Your task to perform on an android device: open app "Google Find My Device" (install if not already installed) Image 0: 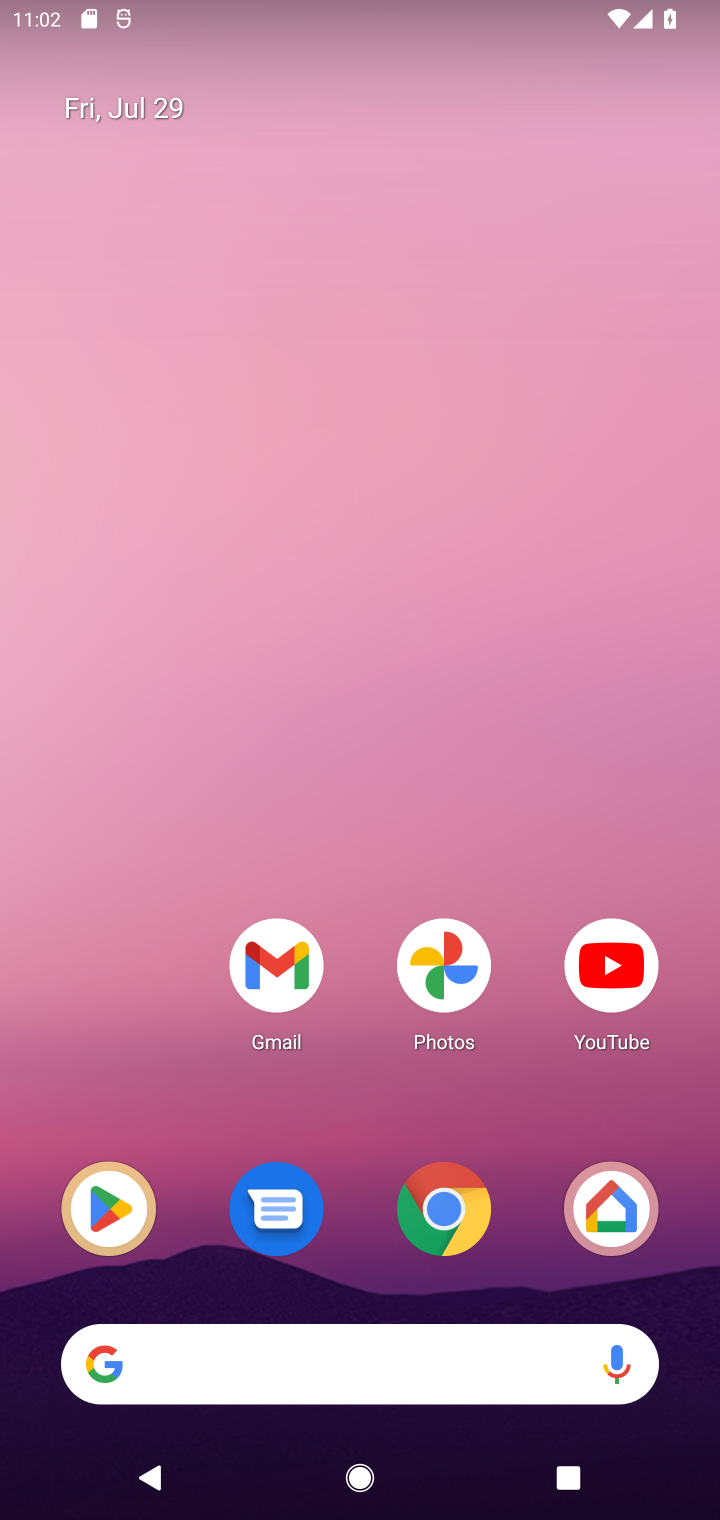
Step 0: drag from (526, 1070) to (502, 145)
Your task to perform on an android device: open app "Google Find My Device" (install if not already installed) Image 1: 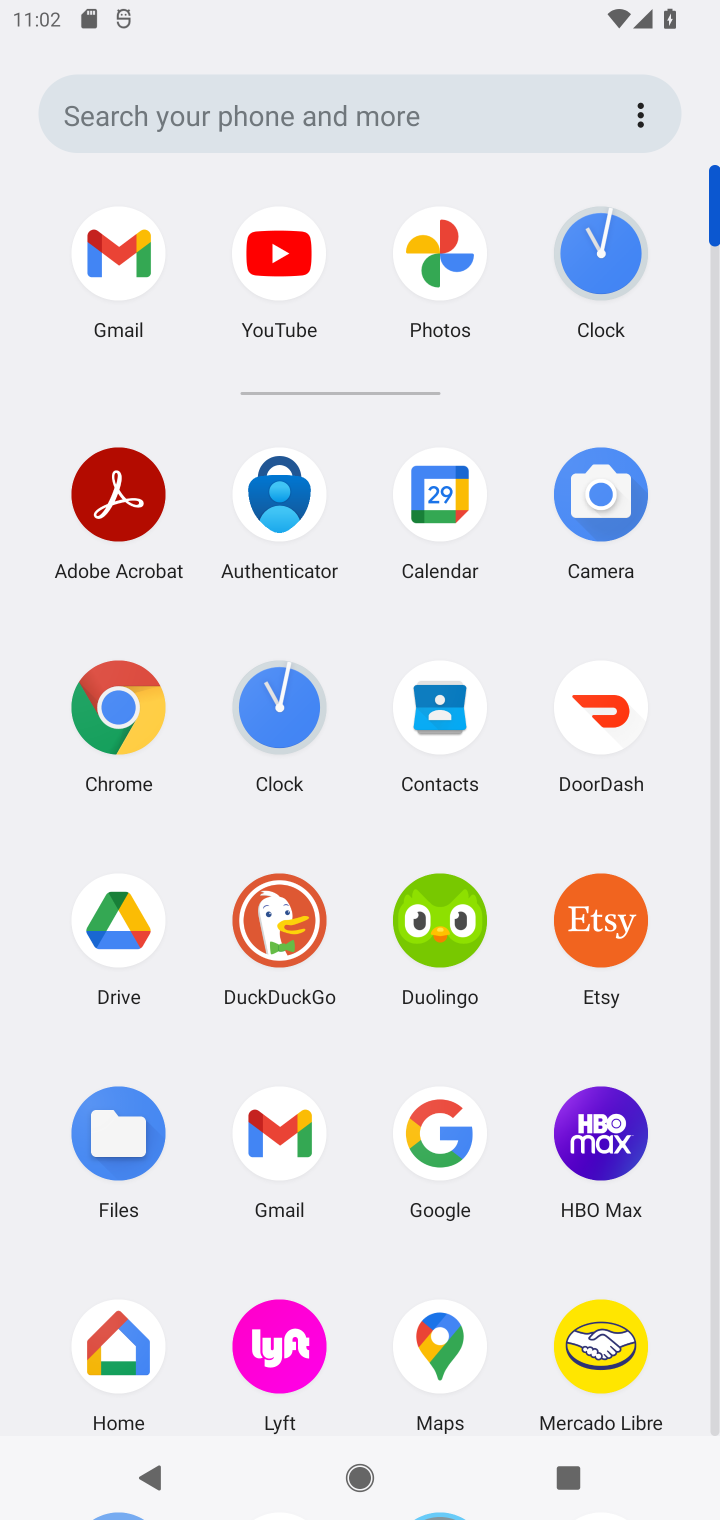
Step 1: drag from (526, 1101) to (537, 435)
Your task to perform on an android device: open app "Google Find My Device" (install if not already installed) Image 2: 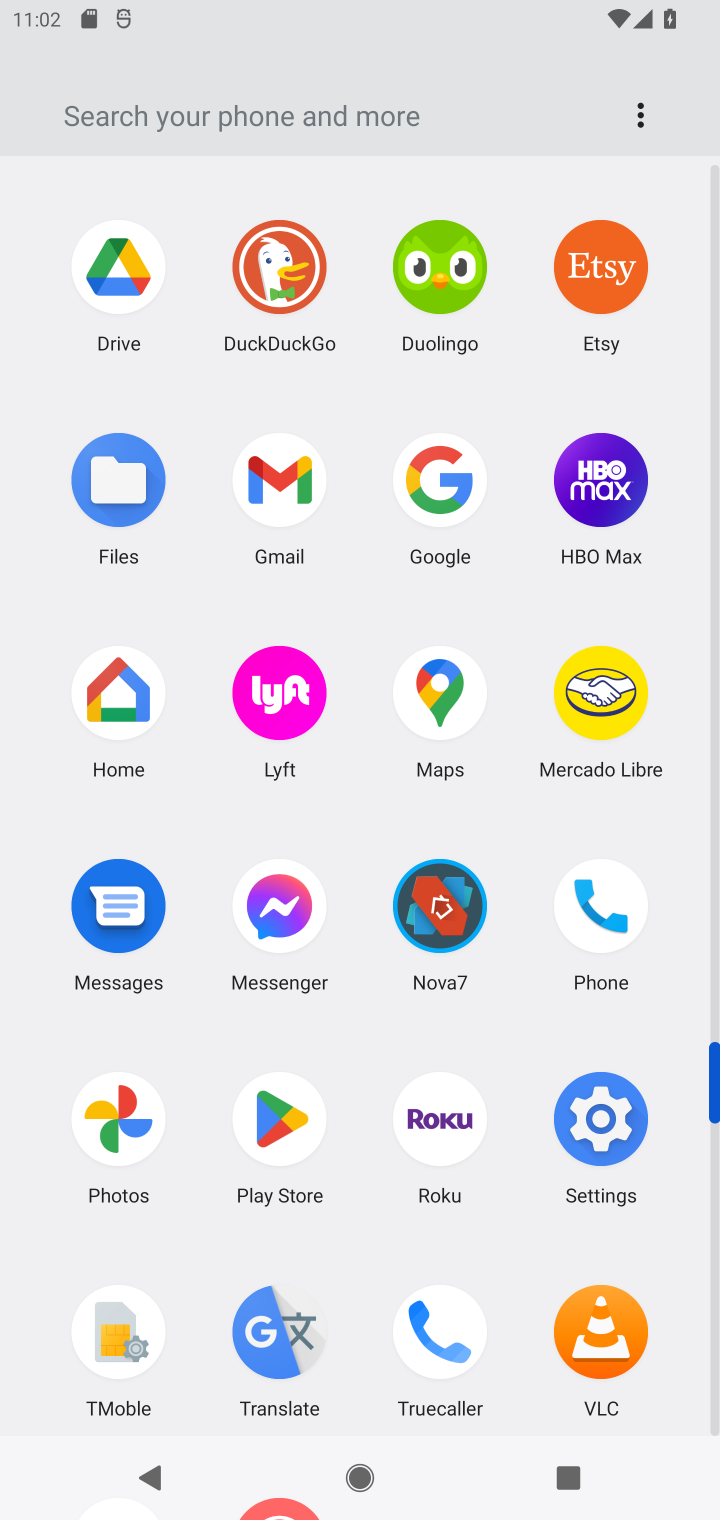
Step 2: click (270, 1130)
Your task to perform on an android device: open app "Google Find My Device" (install if not already installed) Image 3: 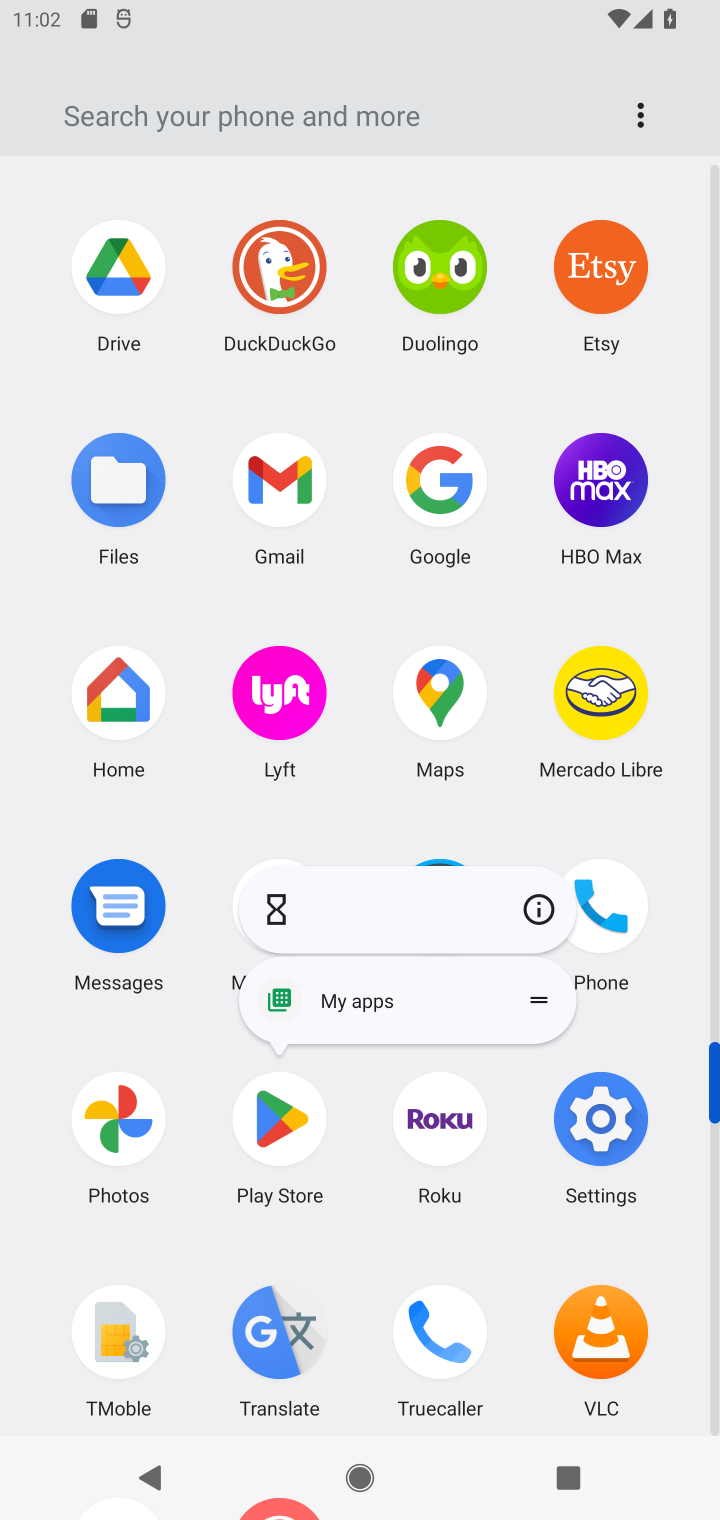
Step 3: click (274, 1103)
Your task to perform on an android device: open app "Google Find My Device" (install if not already installed) Image 4: 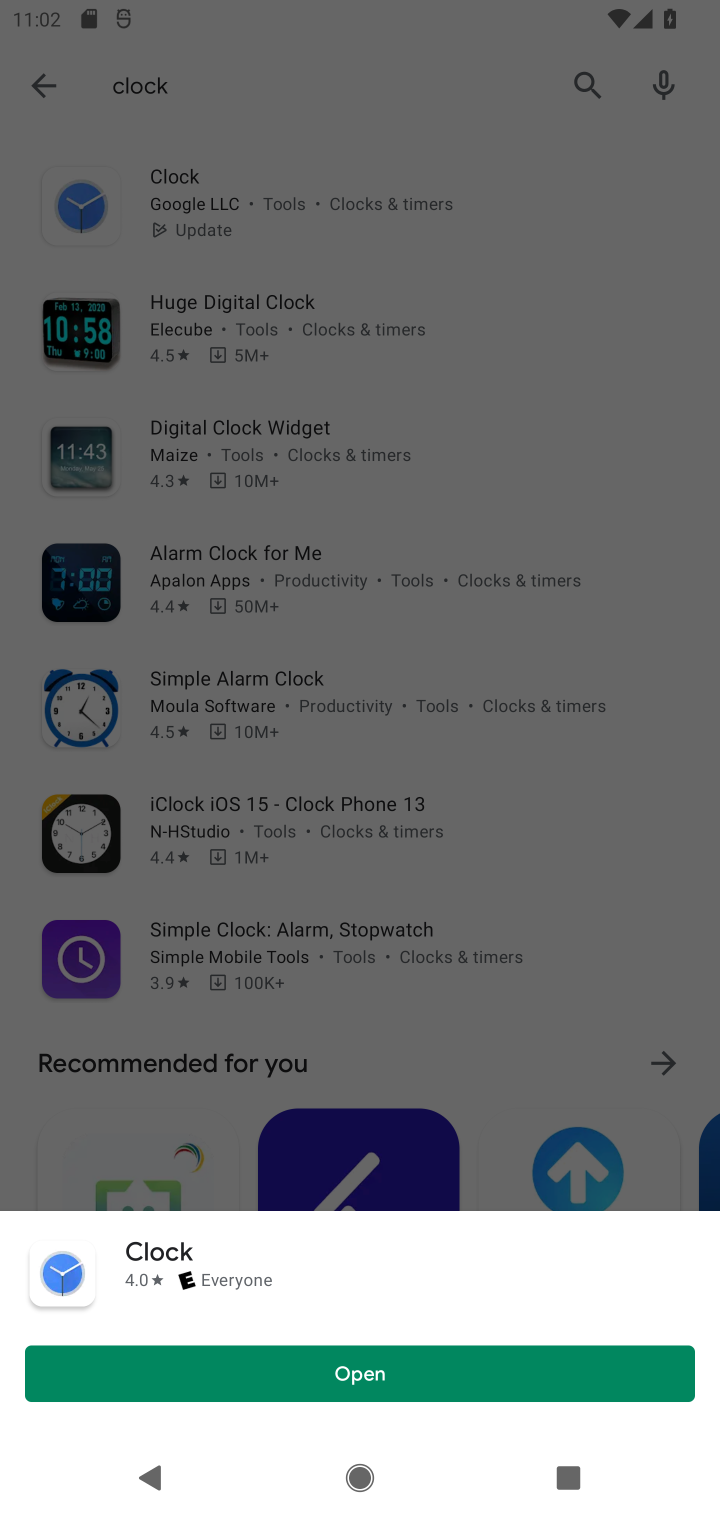
Step 4: click (452, 141)
Your task to perform on an android device: open app "Google Find My Device" (install if not already installed) Image 5: 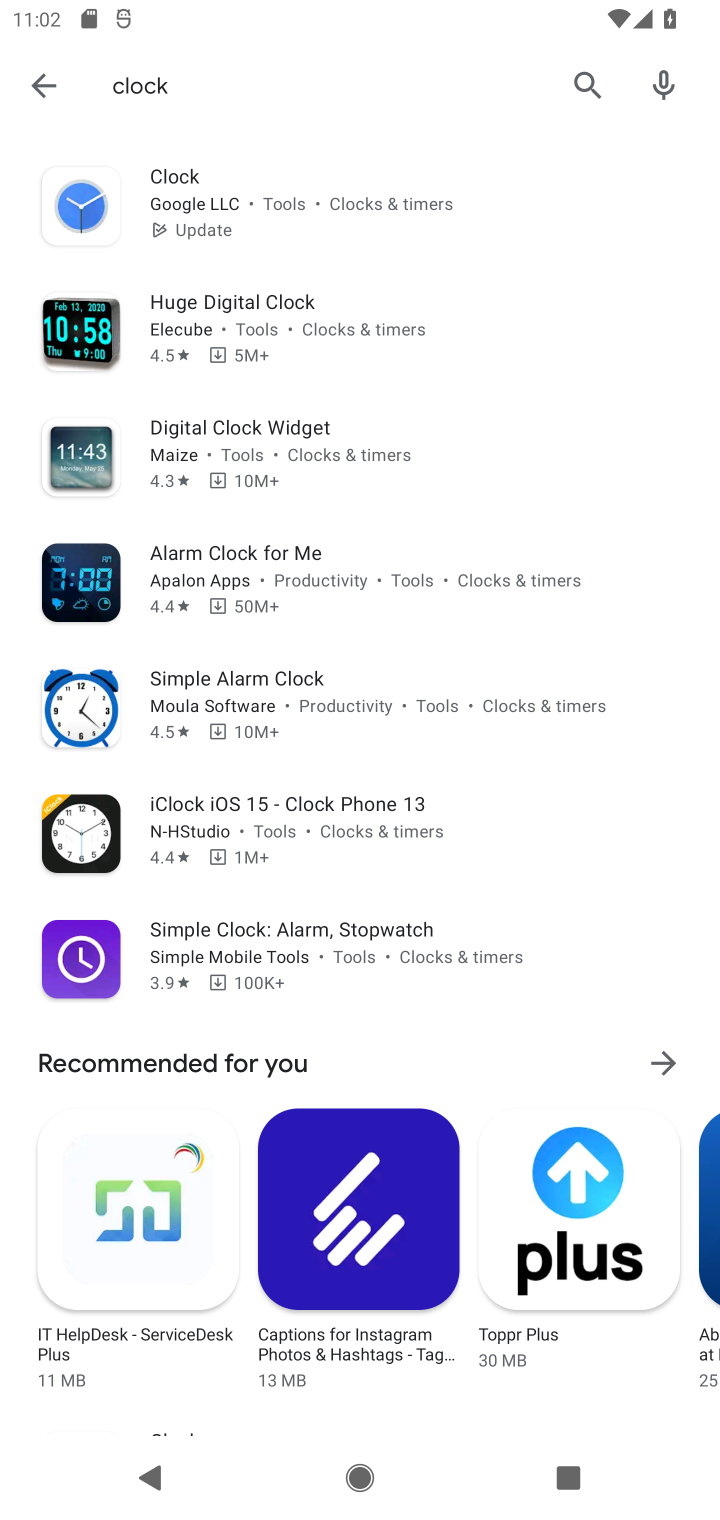
Step 5: click (427, 98)
Your task to perform on an android device: open app "Google Find My Device" (install if not already installed) Image 6: 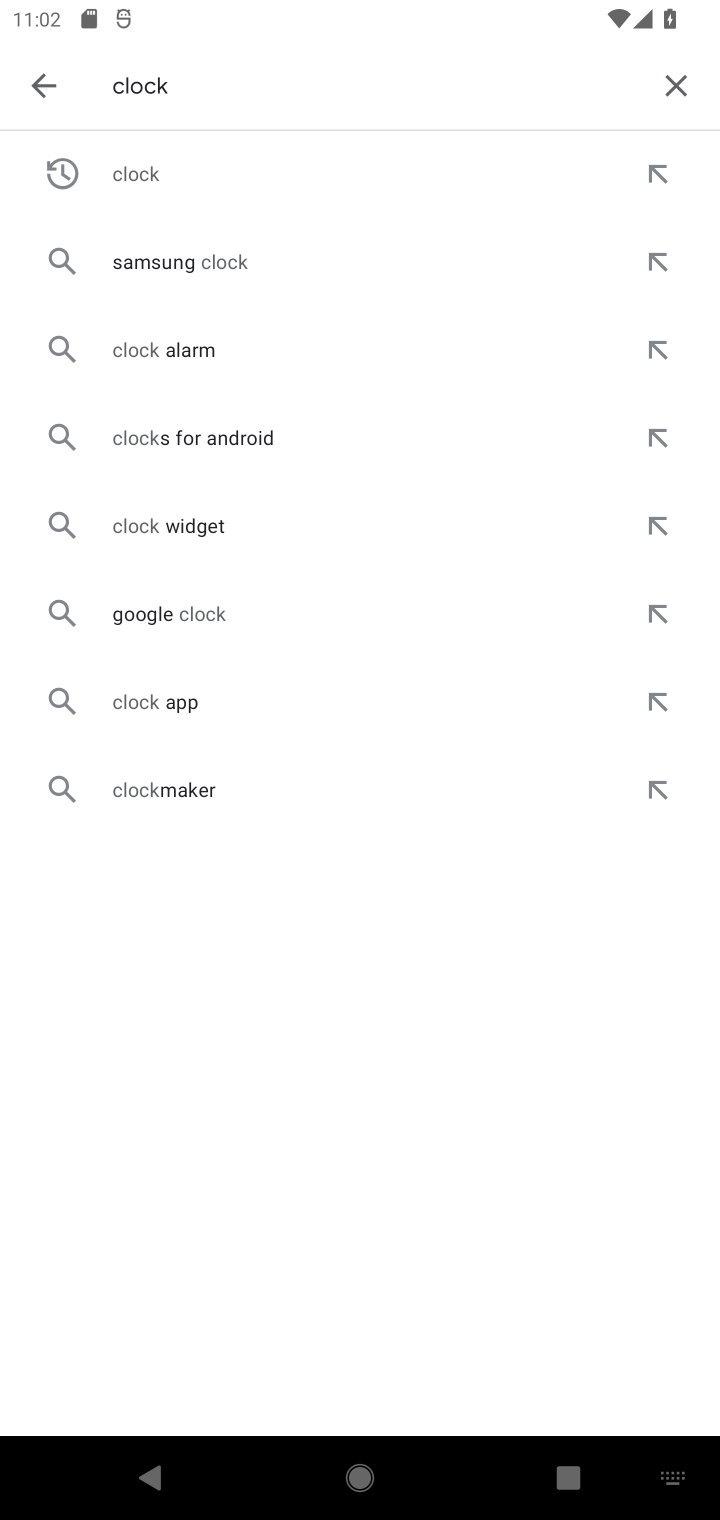
Step 6: click (656, 61)
Your task to perform on an android device: open app "Google Find My Device" (install if not already installed) Image 7: 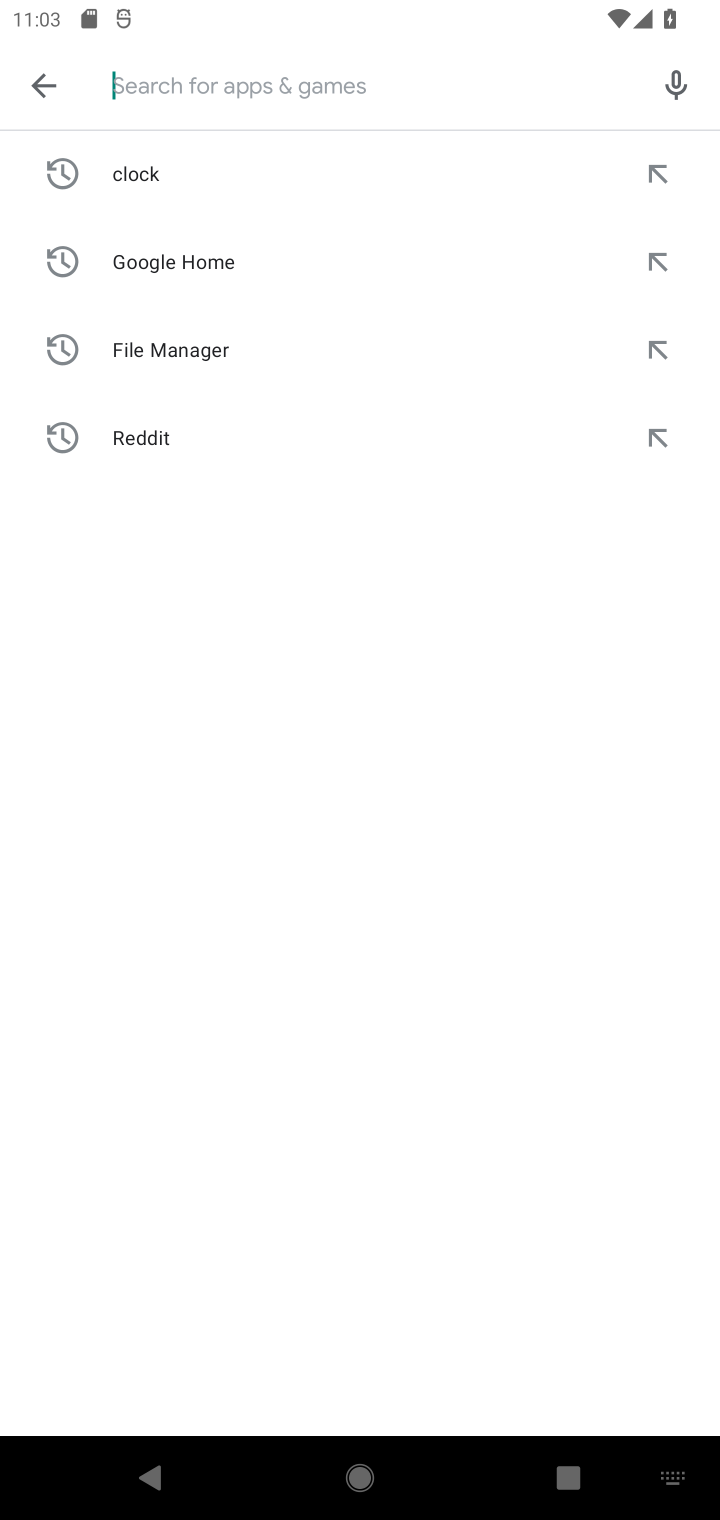
Step 7: type ""
Your task to perform on an android device: open app "Google Find My Device" (install if not already installed) Image 8: 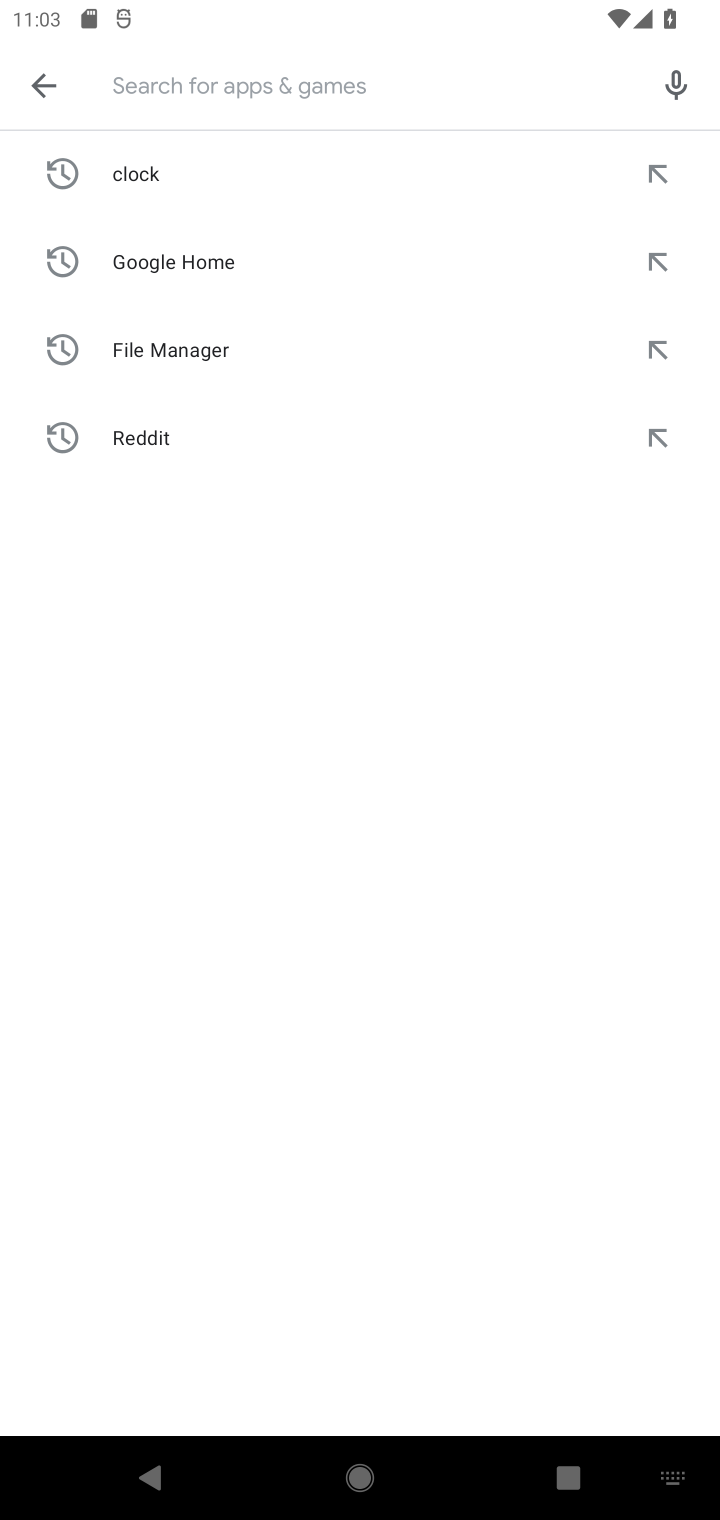
Step 8: type "Google Find My Device"
Your task to perform on an android device: open app "Google Find My Device" (install if not already installed) Image 9: 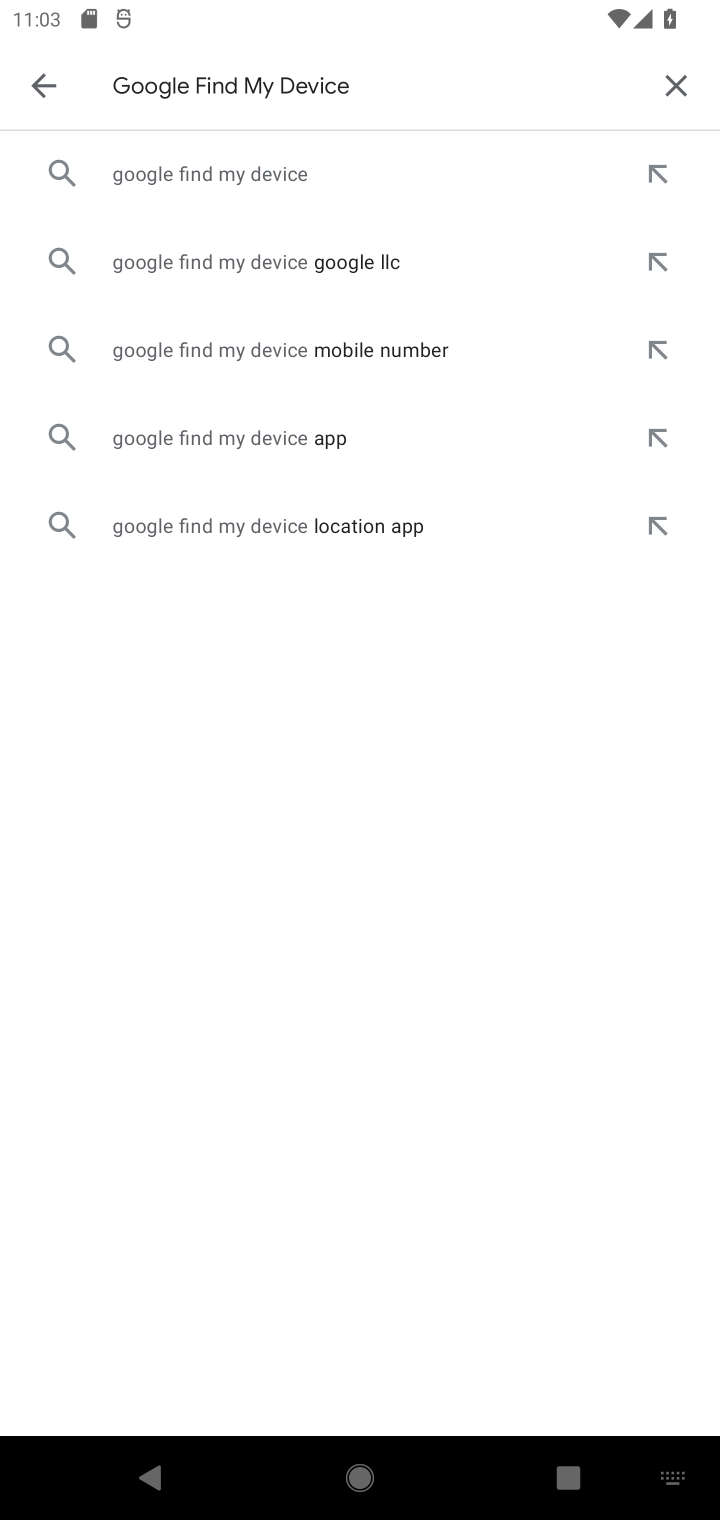
Step 9: press enter
Your task to perform on an android device: open app "Google Find My Device" (install if not already installed) Image 10: 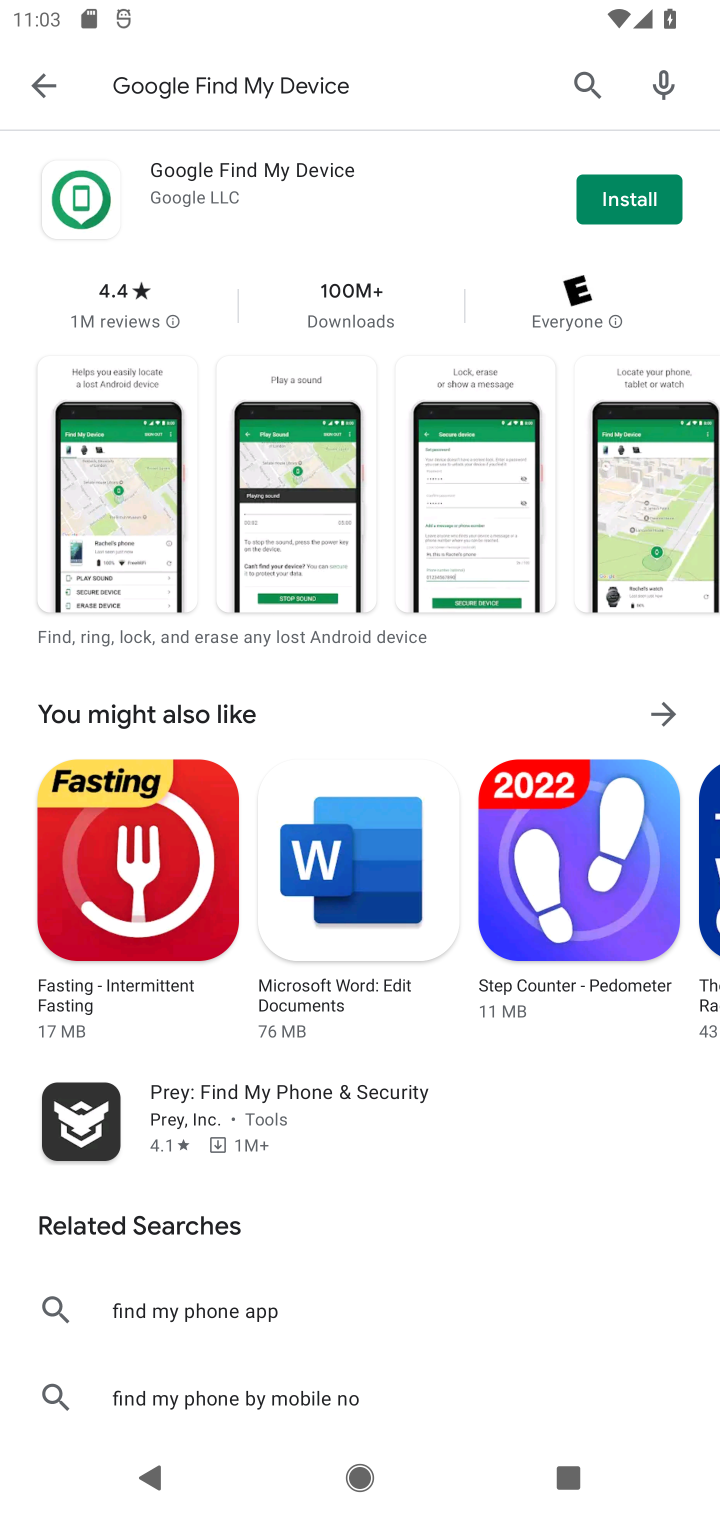
Step 10: click (657, 184)
Your task to perform on an android device: open app "Google Find My Device" (install if not already installed) Image 11: 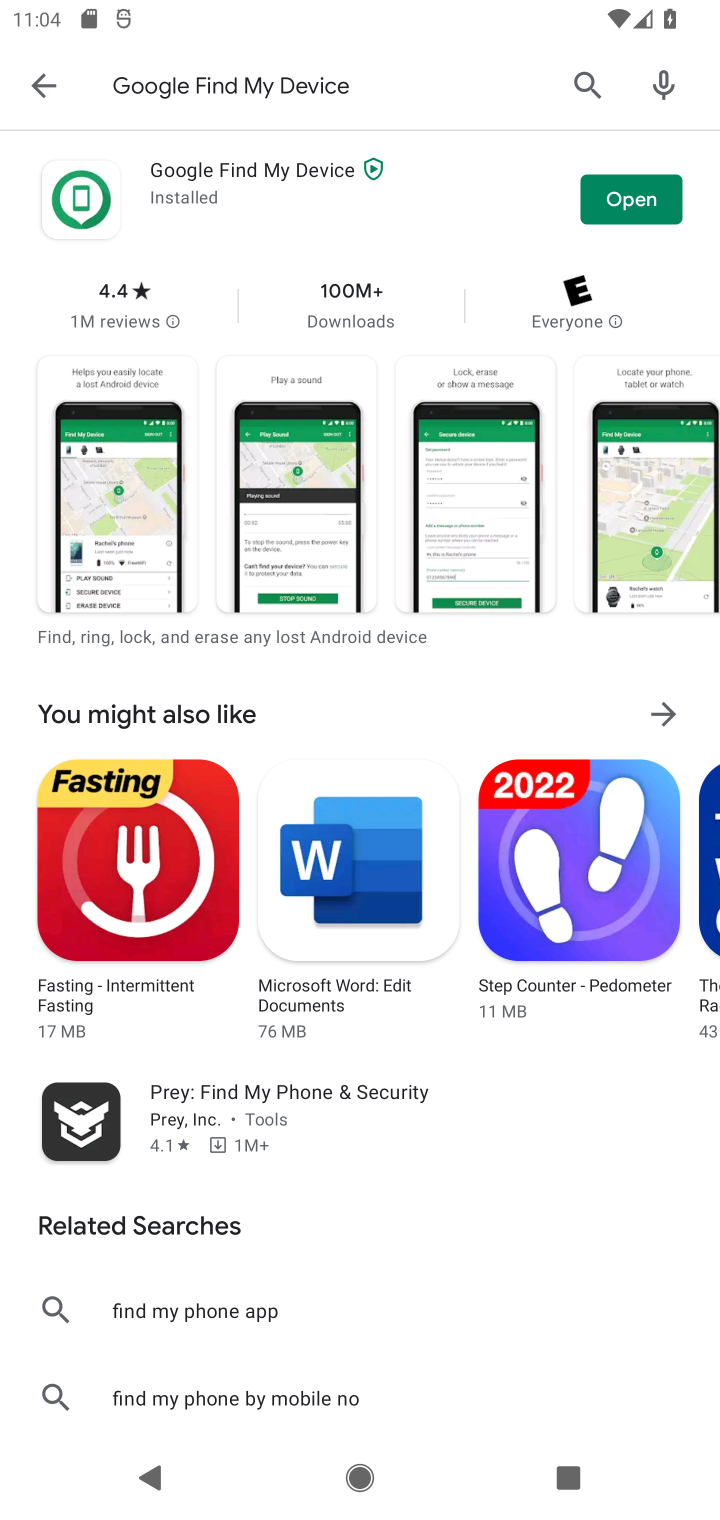
Step 11: click (640, 184)
Your task to perform on an android device: open app "Google Find My Device" (install if not already installed) Image 12: 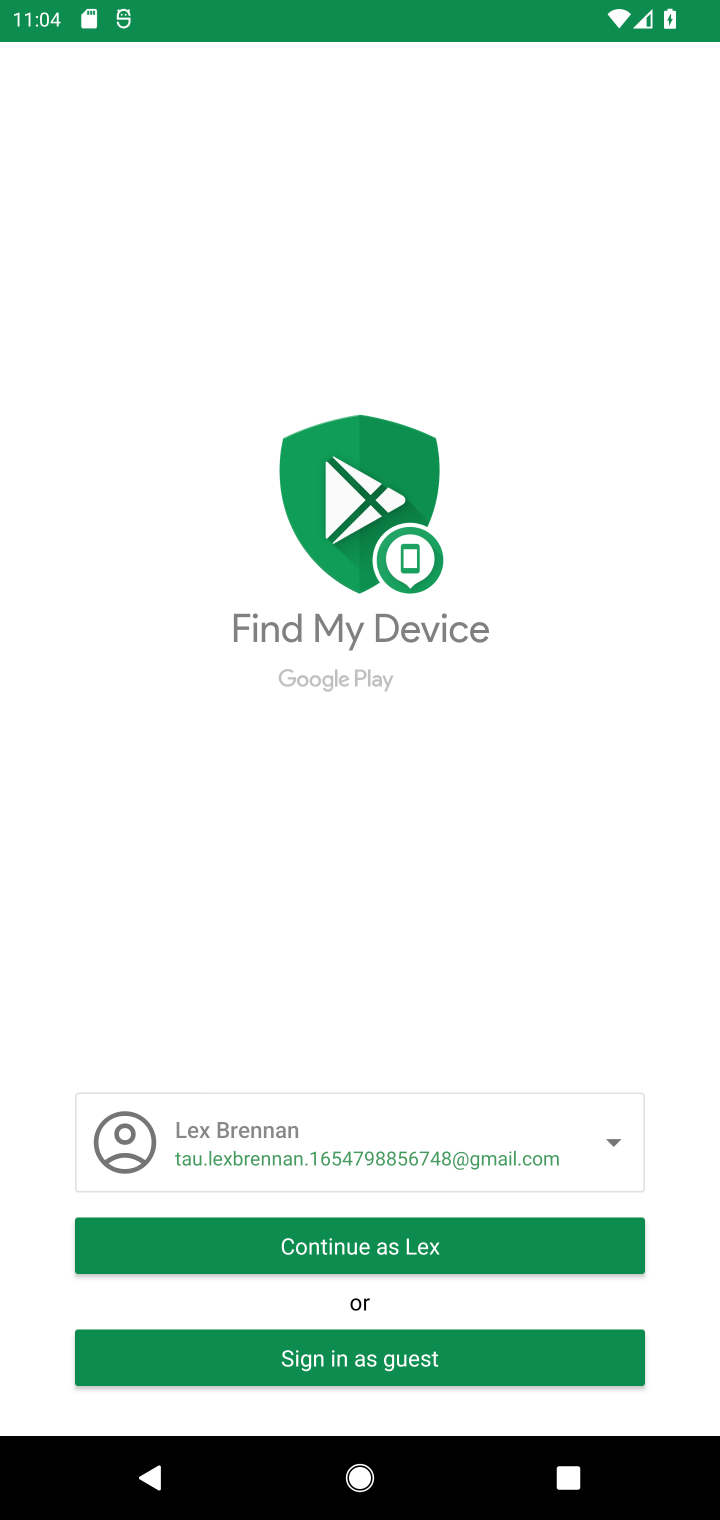
Step 12: task complete